Your task to perform on an android device: What's the weather like in Moscow? Image 0: 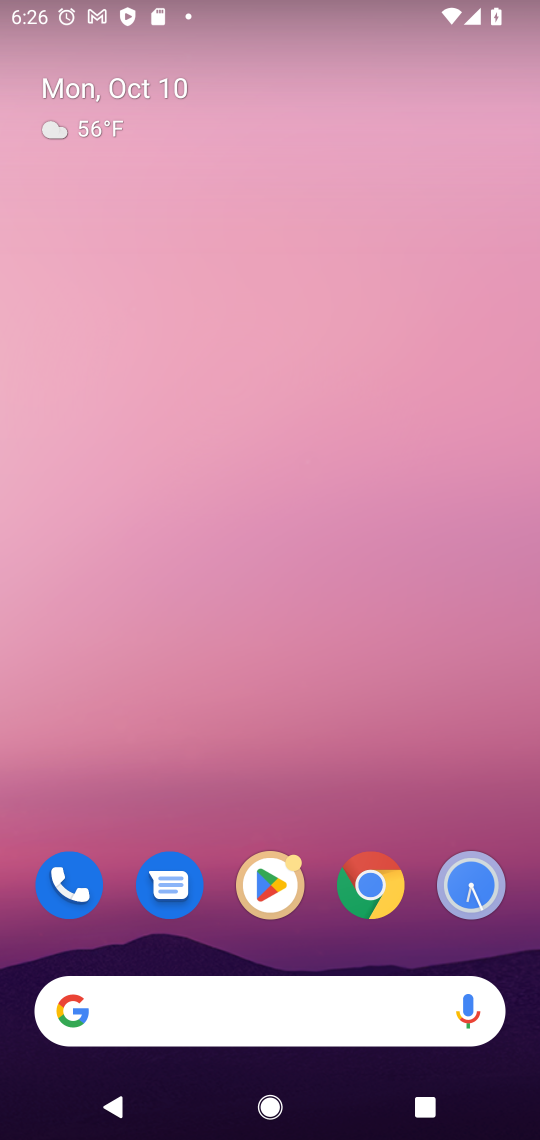
Step 0: click (318, 1014)
Your task to perform on an android device: What's the weather like in Moscow? Image 1: 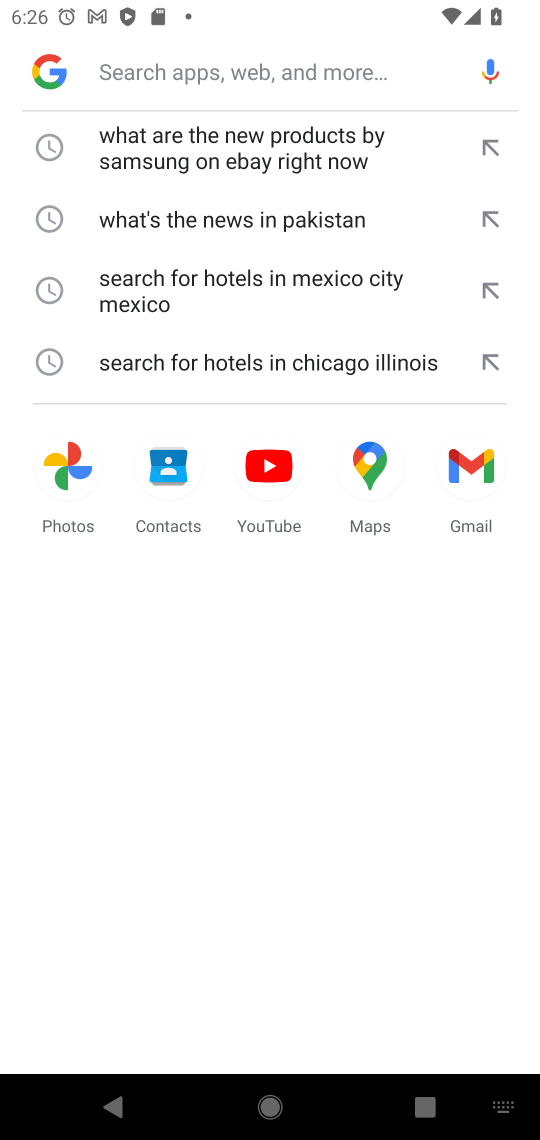
Step 1: type "What's the weather like in Moscow?"
Your task to perform on an android device: What's the weather like in Moscow? Image 2: 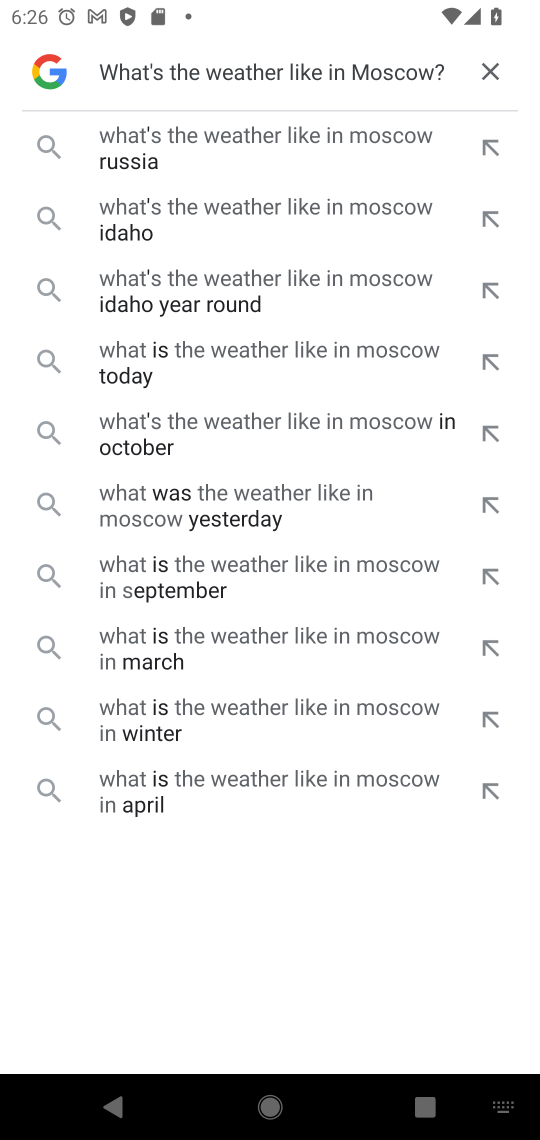
Step 2: click (160, 359)
Your task to perform on an android device: What's the weather like in Moscow? Image 3: 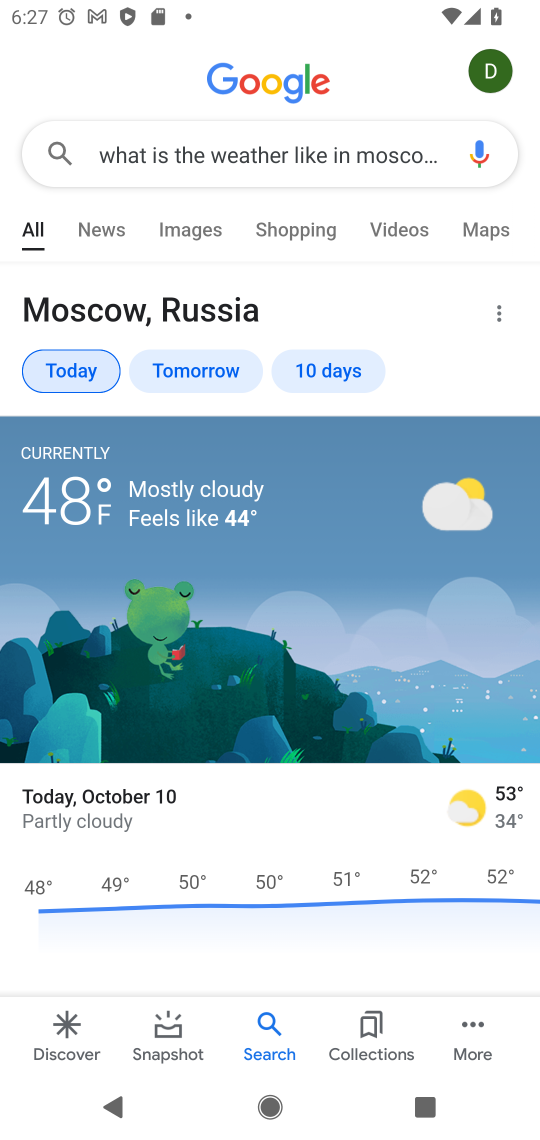
Step 3: task complete